Your task to perform on an android device: find snoozed emails in the gmail app Image 0: 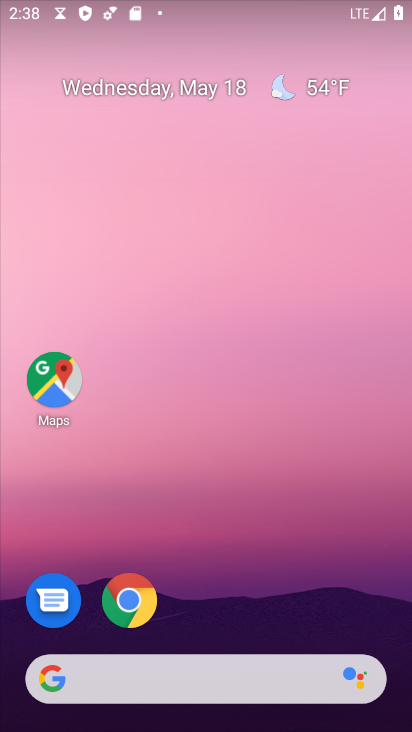
Step 0: press home button
Your task to perform on an android device: find snoozed emails in the gmail app Image 1: 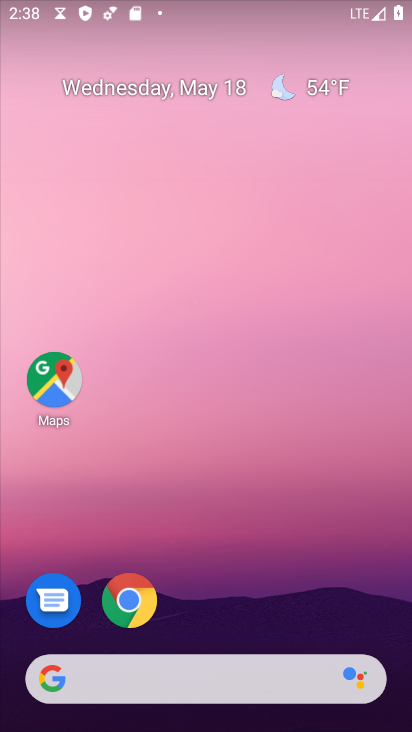
Step 1: drag from (181, 684) to (314, 233)
Your task to perform on an android device: find snoozed emails in the gmail app Image 2: 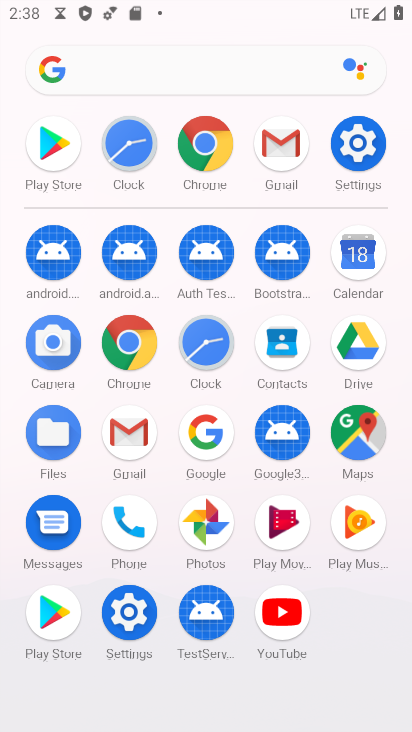
Step 2: click (275, 134)
Your task to perform on an android device: find snoozed emails in the gmail app Image 3: 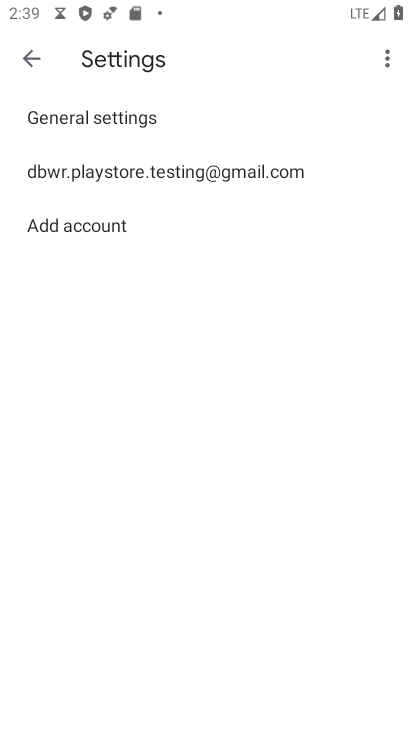
Step 3: click (32, 54)
Your task to perform on an android device: find snoozed emails in the gmail app Image 4: 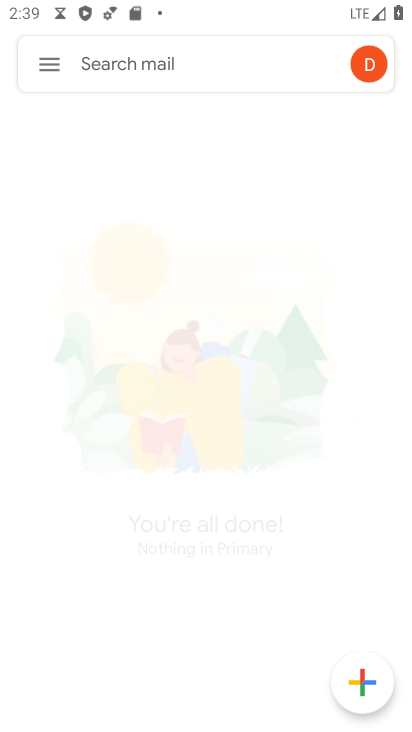
Step 4: click (45, 67)
Your task to perform on an android device: find snoozed emails in the gmail app Image 5: 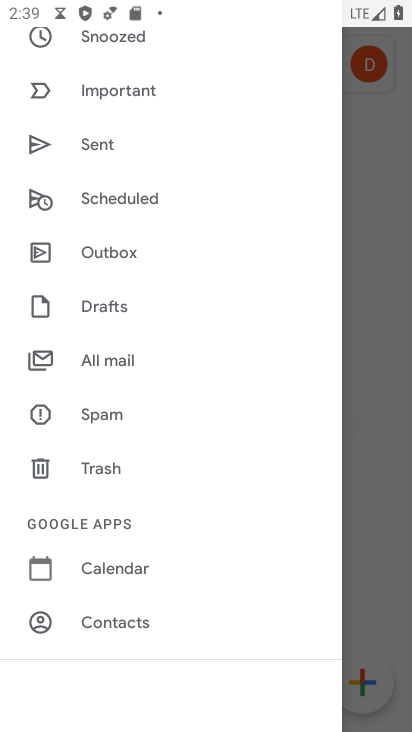
Step 5: click (138, 38)
Your task to perform on an android device: find snoozed emails in the gmail app Image 6: 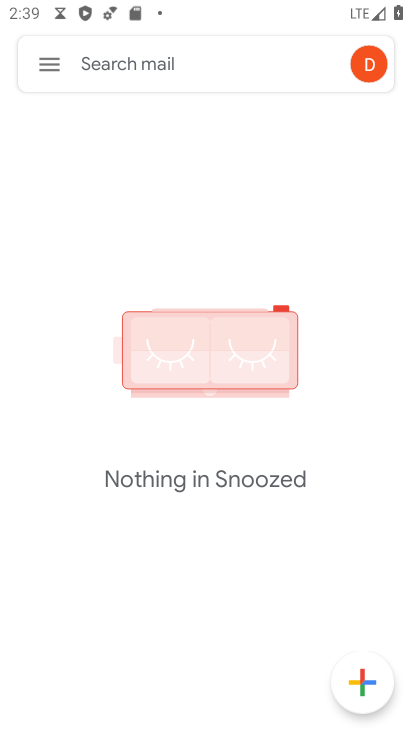
Step 6: task complete